Your task to perform on an android device: add a contact Image 0: 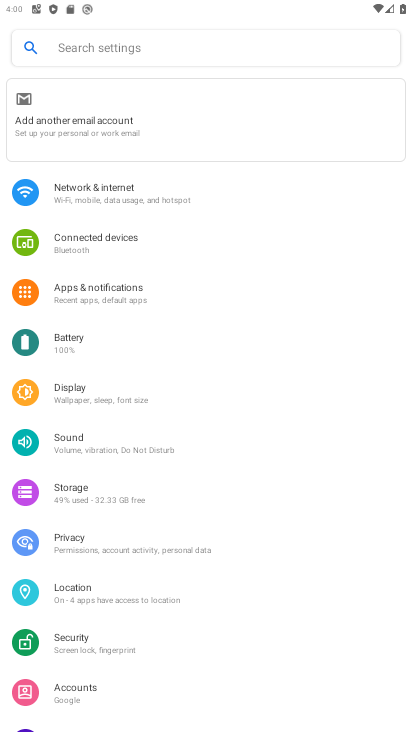
Step 0: press home button
Your task to perform on an android device: add a contact Image 1: 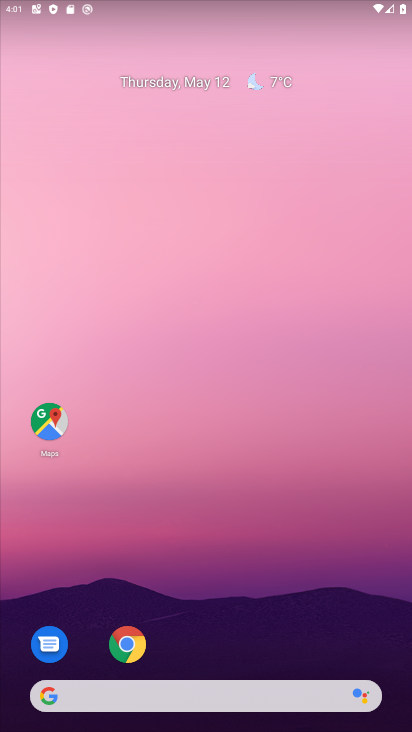
Step 1: drag from (206, 661) to (294, 32)
Your task to perform on an android device: add a contact Image 2: 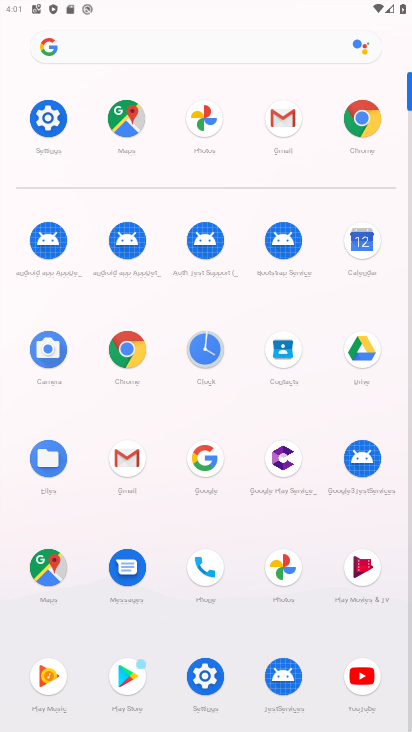
Step 2: click (282, 345)
Your task to perform on an android device: add a contact Image 3: 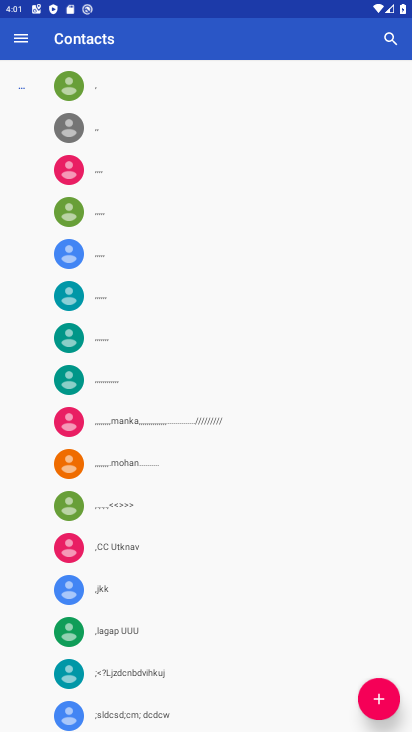
Step 3: click (379, 694)
Your task to perform on an android device: add a contact Image 4: 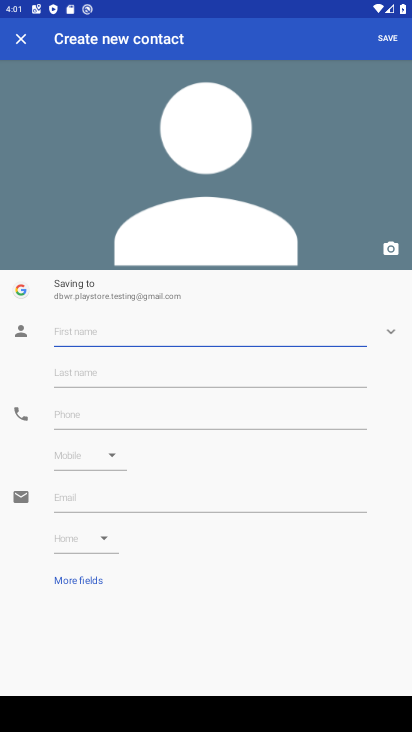
Step 4: type "nbncgfdt"
Your task to perform on an android device: add a contact Image 5: 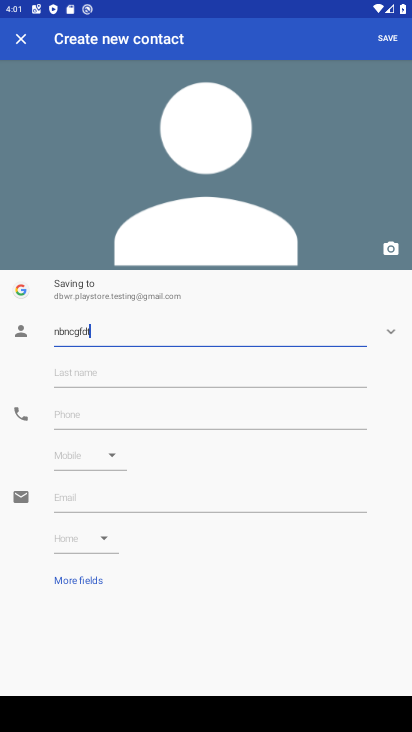
Step 5: click (387, 45)
Your task to perform on an android device: add a contact Image 6: 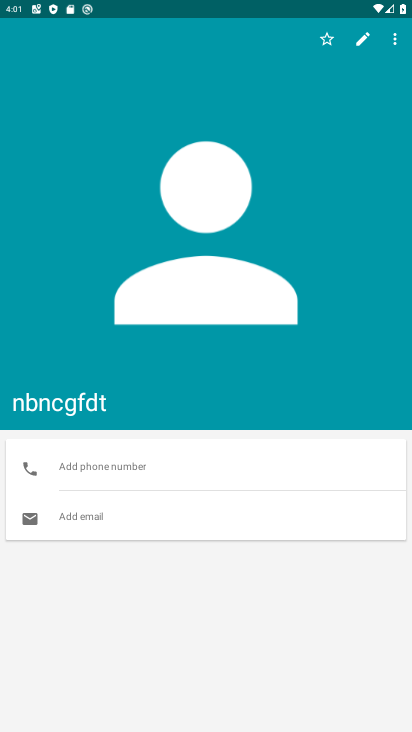
Step 6: task complete